Your task to perform on an android device: turn off picture-in-picture Image 0: 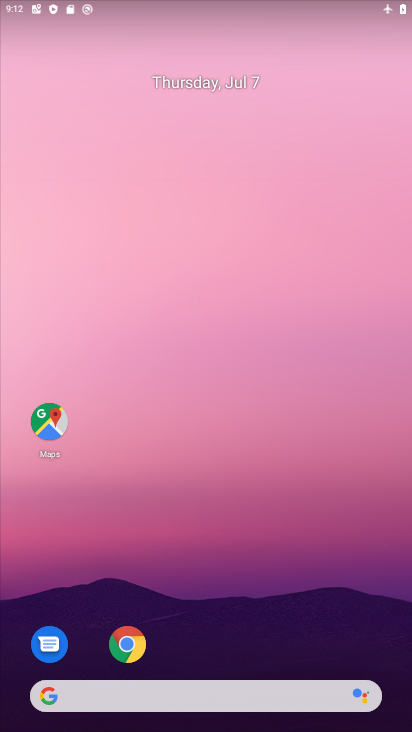
Step 0: click (130, 646)
Your task to perform on an android device: turn off picture-in-picture Image 1: 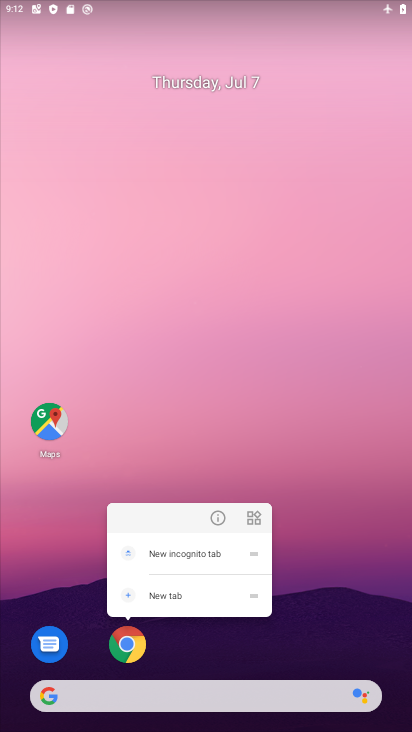
Step 1: click (217, 513)
Your task to perform on an android device: turn off picture-in-picture Image 2: 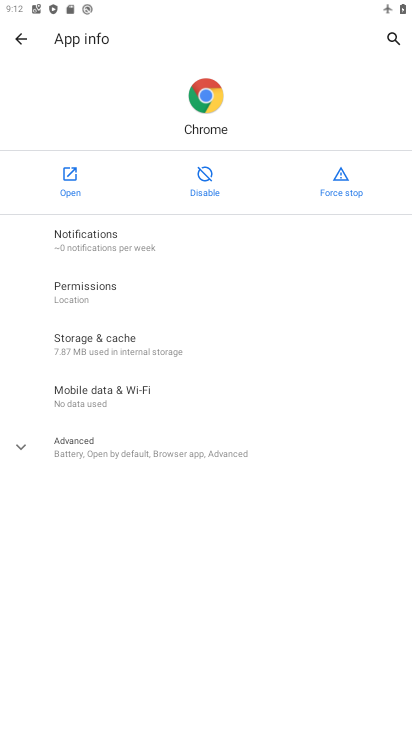
Step 2: click (168, 453)
Your task to perform on an android device: turn off picture-in-picture Image 3: 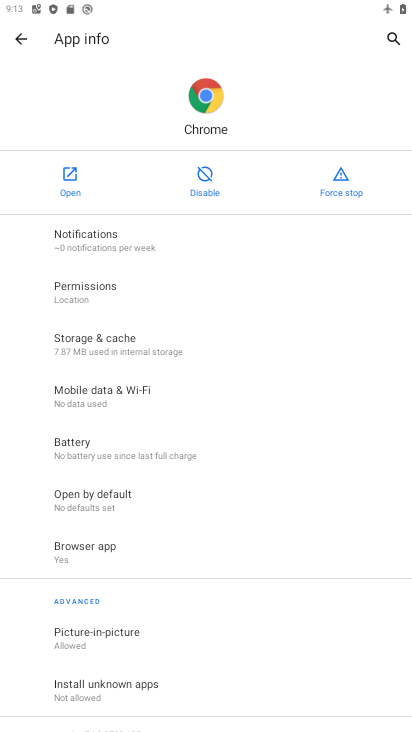
Step 3: click (101, 625)
Your task to perform on an android device: turn off picture-in-picture Image 4: 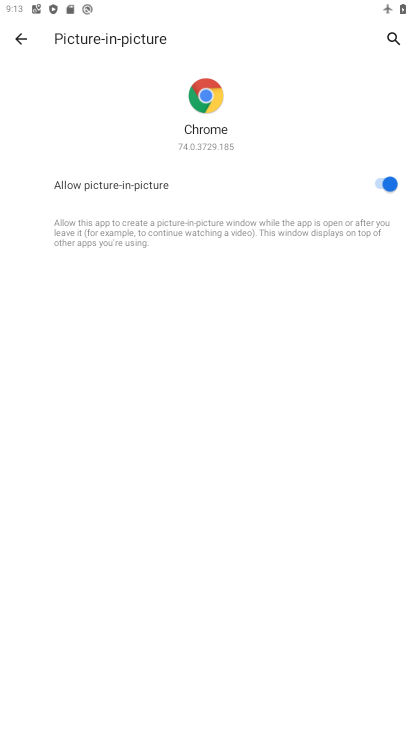
Step 4: click (378, 182)
Your task to perform on an android device: turn off picture-in-picture Image 5: 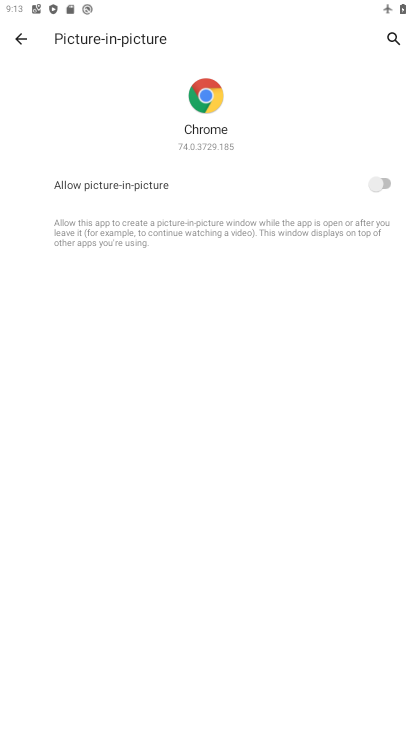
Step 5: task complete